Your task to perform on an android device: turn off priority inbox in the gmail app Image 0: 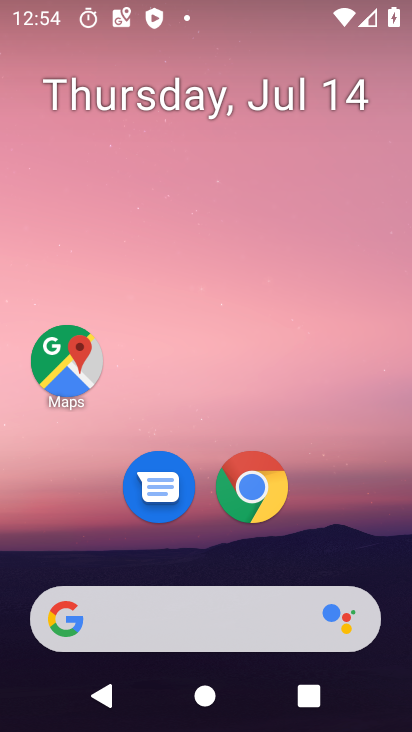
Step 0: drag from (234, 610) to (257, 148)
Your task to perform on an android device: turn off priority inbox in the gmail app Image 1: 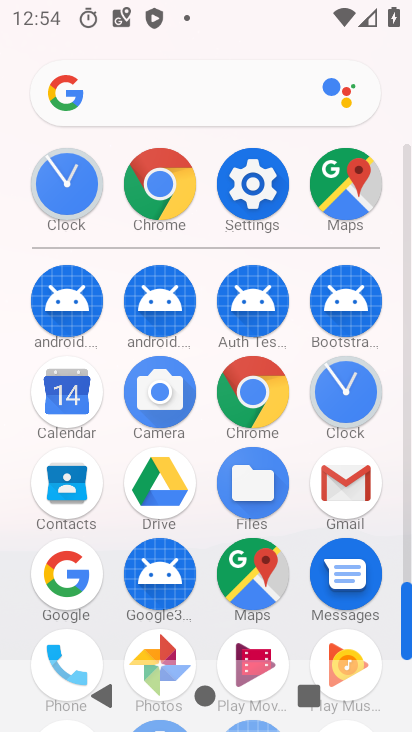
Step 1: click (335, 500)
Your task to perform on an android device: turn off priority inbox in the gmail app Image 2: 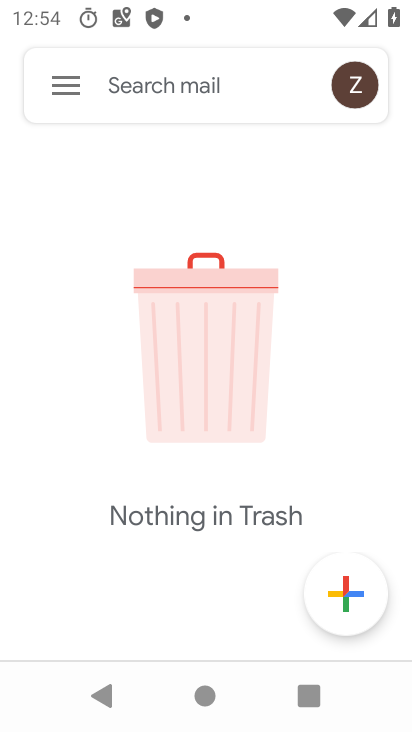
Step 2: click (60, 81)
Your task to perform on an android device: turn off priority inbox in the gmail app Image 3: 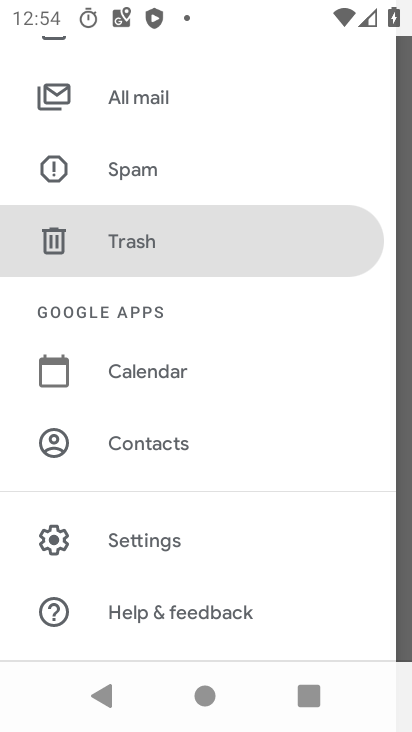
Step 3: click (100, 531)
Your task to perform on an android device: turn off priority inbox in the gmail app Image 4: 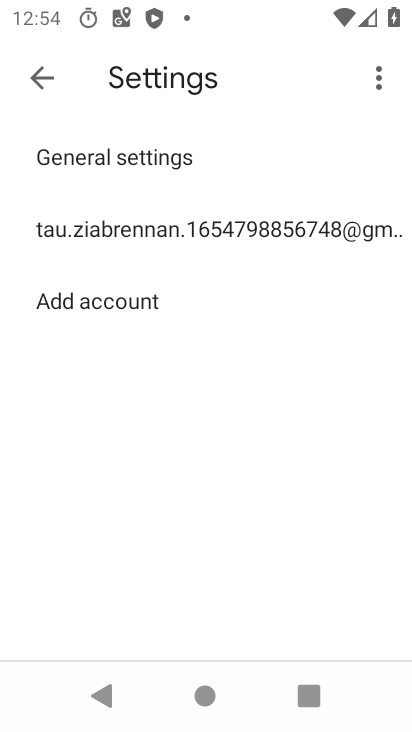
Step 4: click (115, 240)
Your task to perform on an android device: turn off priority inbox in the gmail app Image 5: 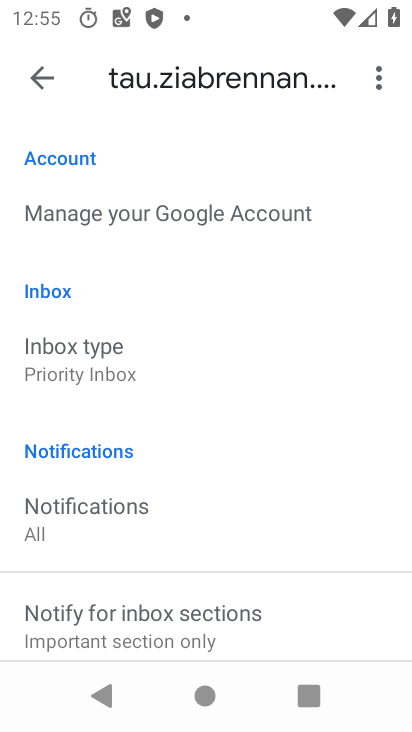
Step 5: click (101, 362)
Your task to perform on an android device: turn off priority inbox in the gmail app Image 6: 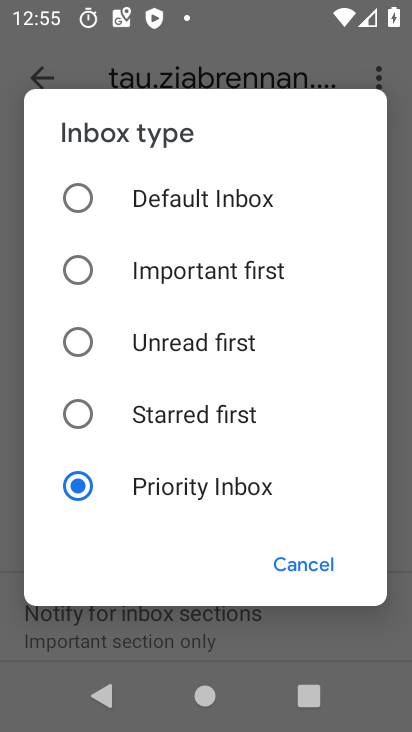
Step 6: click (71, 273)
Your task to perform on an android device: turn off priority inbox in the gmail app Image 7: 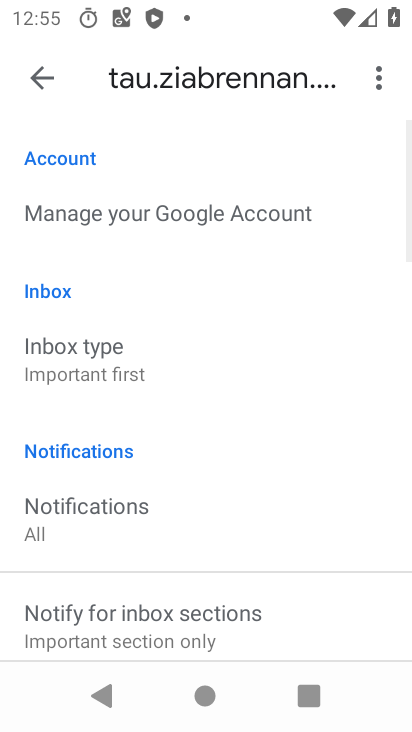
Step 7: task complete